Your task to perform on an android device: Show the shopping cart on newegg.com. Add "usb-c to usb-b" to the cart on newegg.com Image 0: 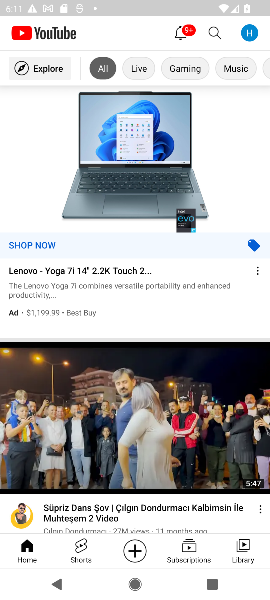
Step 0: press home button
Your task to perform on an android device: Show the shopping cart on newegg.com. Add "usb-c to usb-b" to the cart on newegg.com Image 1: 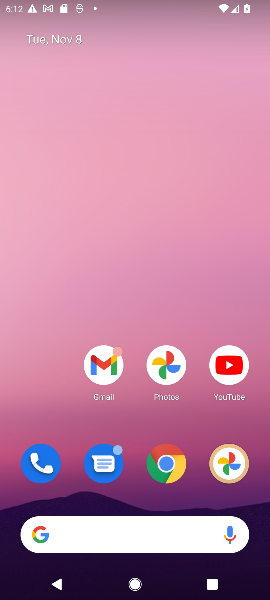
Step 1: click (177, 467)
Your task to perform on an android device: Show the shopping cart on newegg.com. Add "usb-c to usb-b" to the cart on newegg.com Image 2: 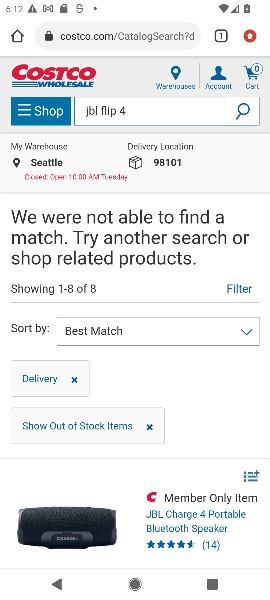
Step 2: click (84, 28)
Your task to perform on an android device: Show the shopping cart on newegg.com. Add "usb-c to usb-b" to the cart on newegg.com Image 3: 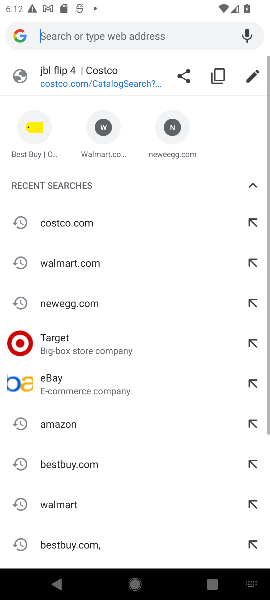
Step 3: click (136, 297)
Your task to perform on an android device: Show the shopping cart on newegg.com. Add "usb-c to usb-b" to the cart on newegg.com Image 4: 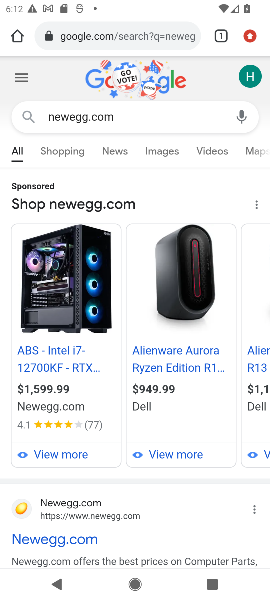
Step 4: click (61, 541)
Your task to perform on an android device: Show the shopping cart on newegg.com. Add "usb-c to usb-b" to the cart on newegg.com Image 5: 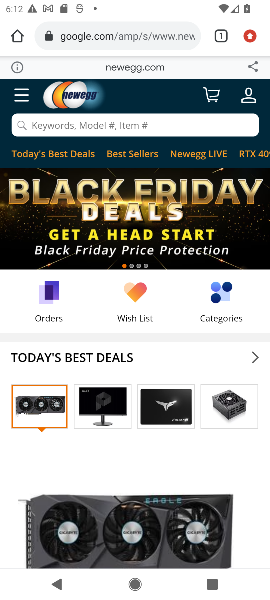
Step 5: click (205, 97)
Your task to perform on an android device: Show the shopping cart on newegg.com. Add "usb-c to usb-b" to the cart on newegg.com Image 6: 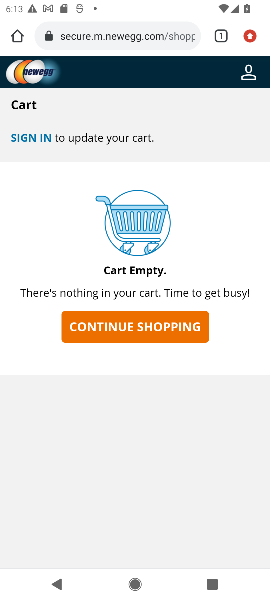
Step 6: click (148, 323)
Your task to perform on an android device: Show the shopping cart on newegg.com. Add "usb-c to usb-b" to the cart on newegg.com Image 7: 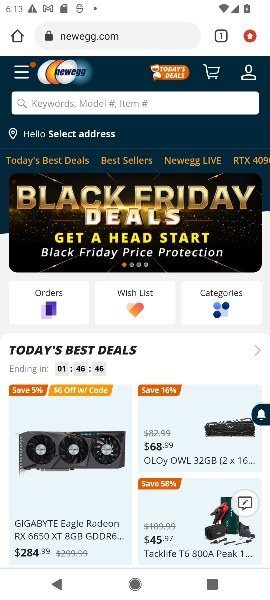
Step 7: click (65, 106)
Your task to perform on an android device: Show the shopping cart on newegg.com. Add "usb-c to usb-b" to the cart on newegg.com Image 8: 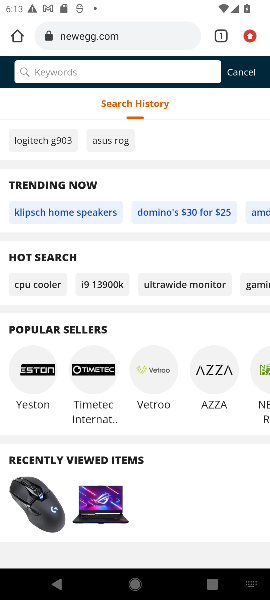
Step 8: type "usb-c to usb-b"
Your task to perform on an android device: Show the shopping cart on newegg.com. Add "usb-c to usb-b" to the cart on newegg.com Image 9: 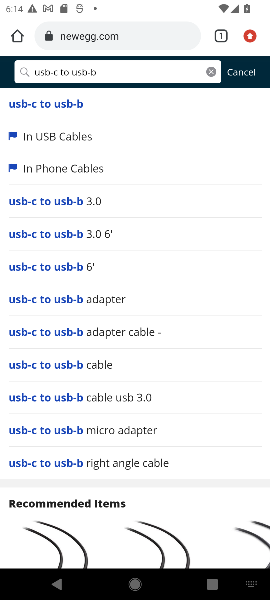
Step 9: click (54, 104)
Your task to perform on an android device: Show the shopping cart on newegg.com. Add "usb-c to usb-b" to the cart on newegg.com Image 10: 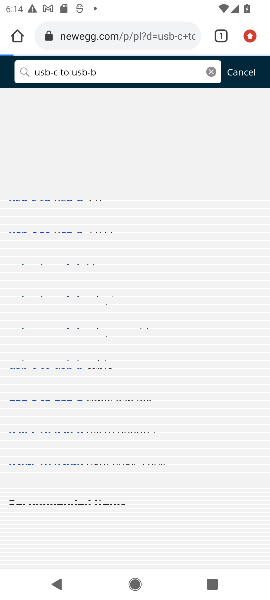
Step 10: click (54, 104)
Your task to perform on an android device: Show the shopping cart on newegg.com. Add "usb-c to usb-b" to the cart on newegg.com Image 11: 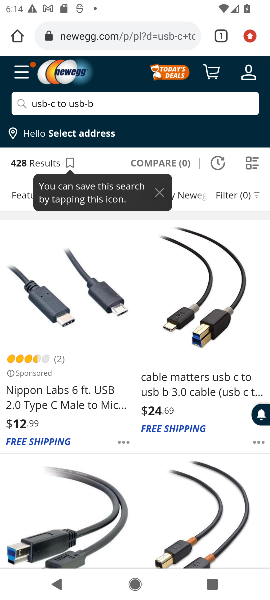
Step 11: click (190, 387)
Your task to perform on an android device: Show the shopping cart on newegg.com. Add "usb-c to usb-b" to the cart on newegg.com Image 12: 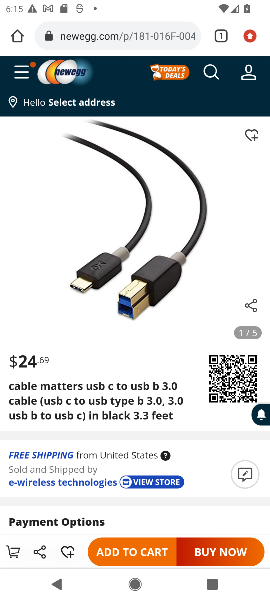
Step 12: click (154, 546)
Your task to perform on an android device: Show the shopping cart on newegg.com. Add "usb-c to usb-b" to the cart on newegg.com Image 13: 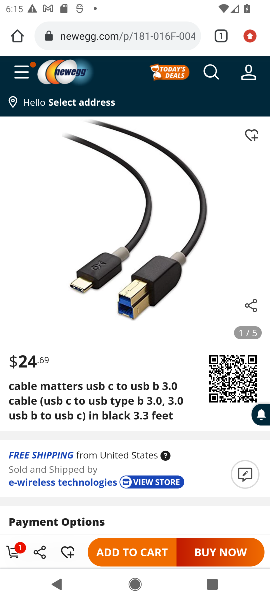
Step 13: click (131, 555)
Your task to perform on an android device: Show the shopping cart on newegg.com. Add "usb-c to usb-b" to the cart on newegg.com Image 14: 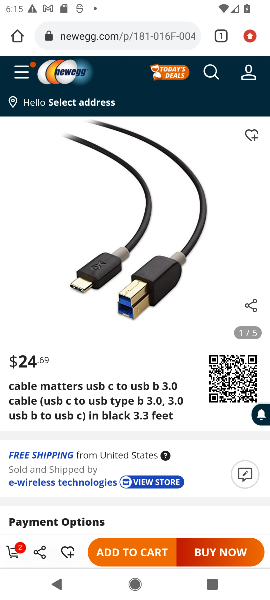
Step 14: click (131, 555)
Your task to perform on an android device: Show the shopping cart on newegg.com. Add "usb-c to usb-b" to the cart on newegg.com Image 15: 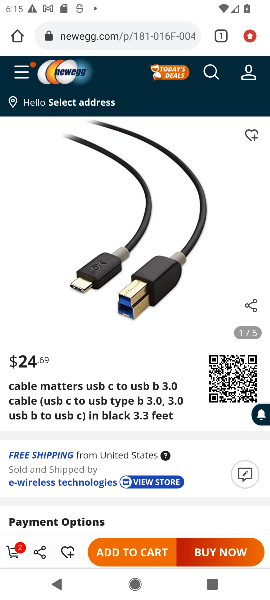
Step 15: task complete